Your task to perform on an android device: open app "Fetch Rewards" Image 0: 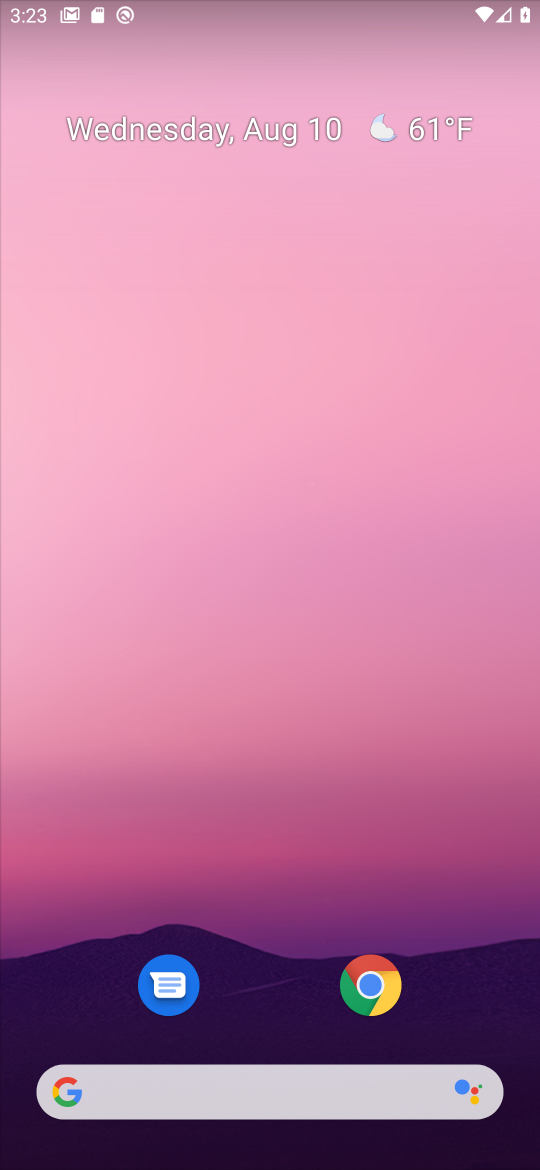
Step 0: drag from (264, 917) to (221, 244)
Your task to perform on an android device: open app "Fetch Rewards" Image 1: 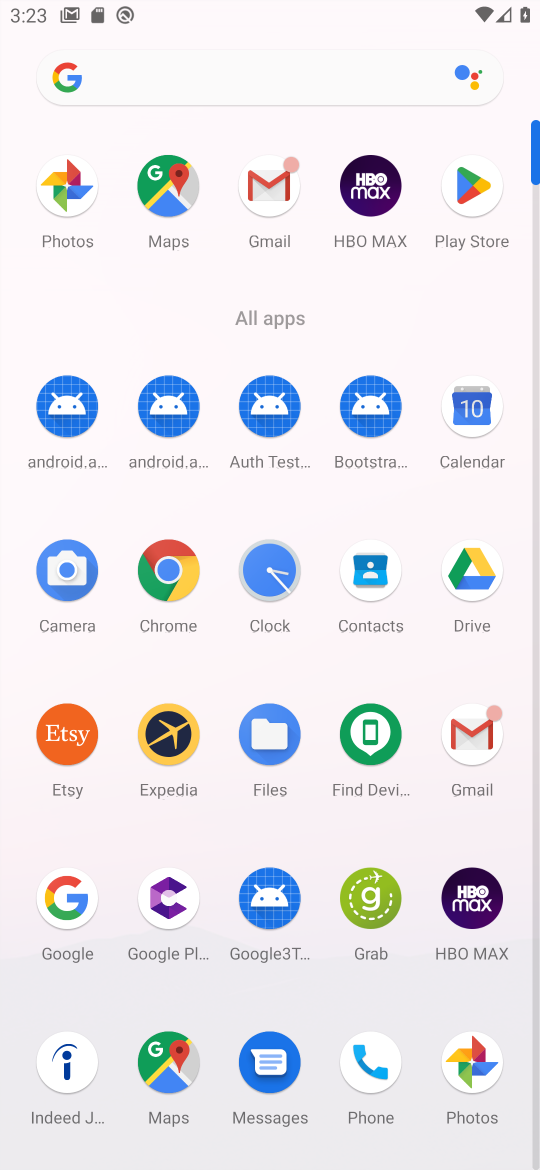
Step 1: click (474, 195)
Your task to perform on an android device: open app "Fetch Rewards" Image 2: 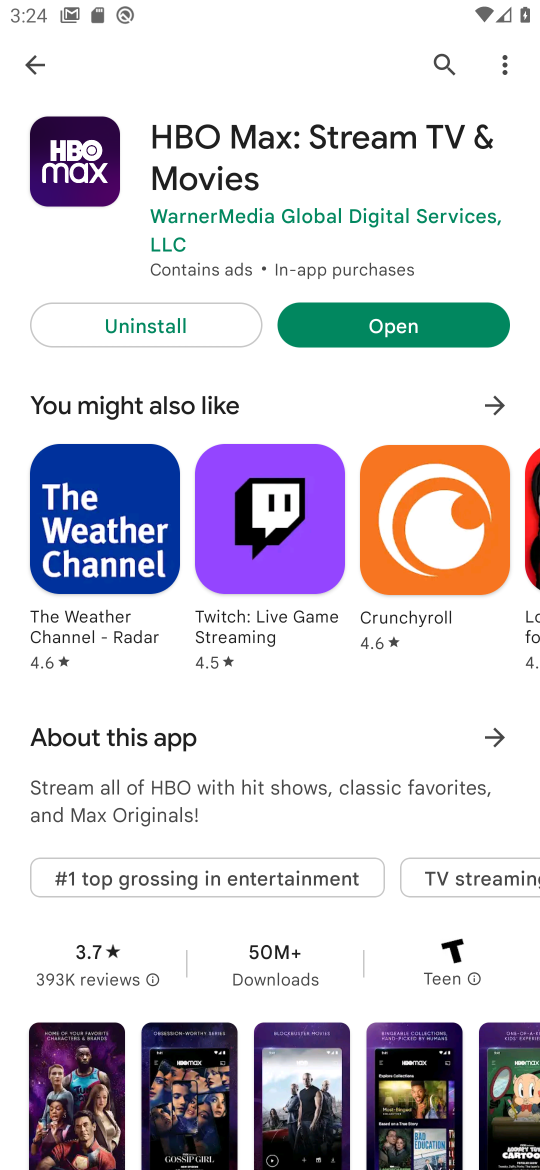
Step 2: click (41, 59)
Your task to perform on an android device: open app "Fetch Rewards" Image 3: 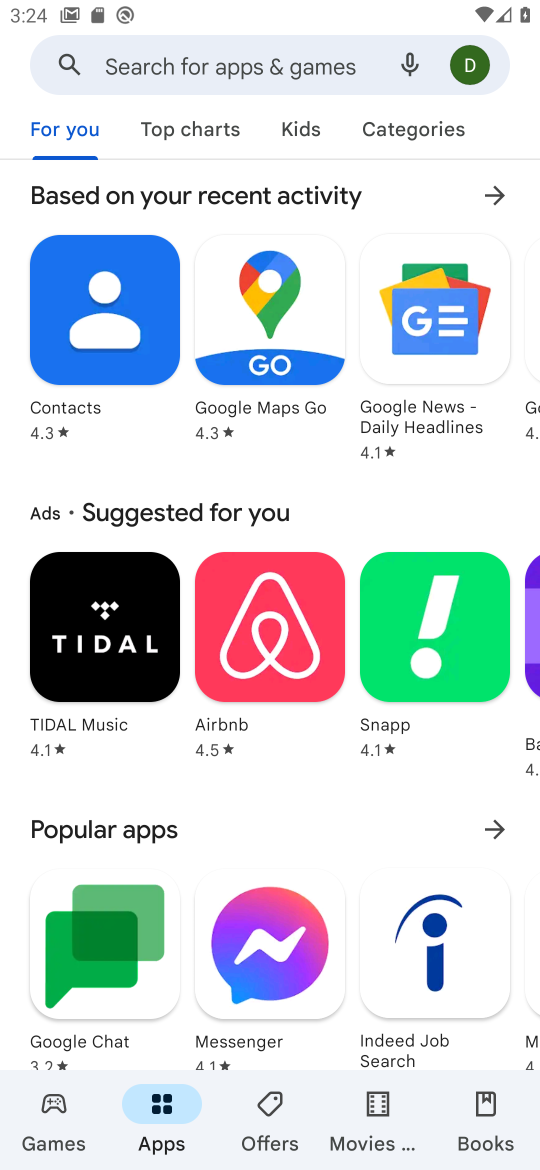
Step 3: click (196, 59)
Your task to perform on an android device: open app "Fetch Rewards" Image 4: 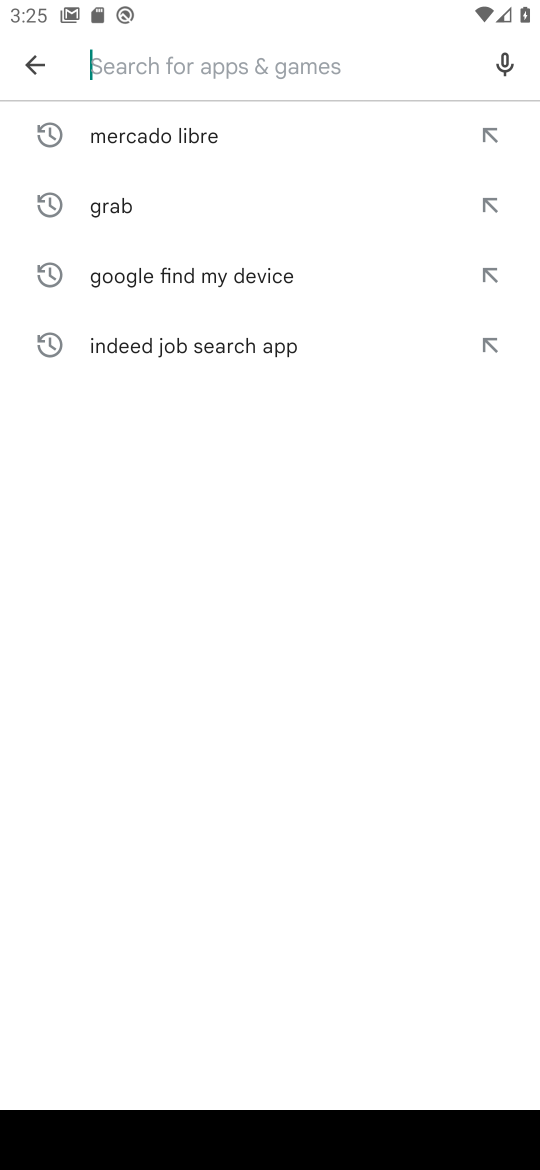
Step 4: type "Fetch Rewards"
Your task to perform on an android device: open app "Fetch Rewards" Image 5: 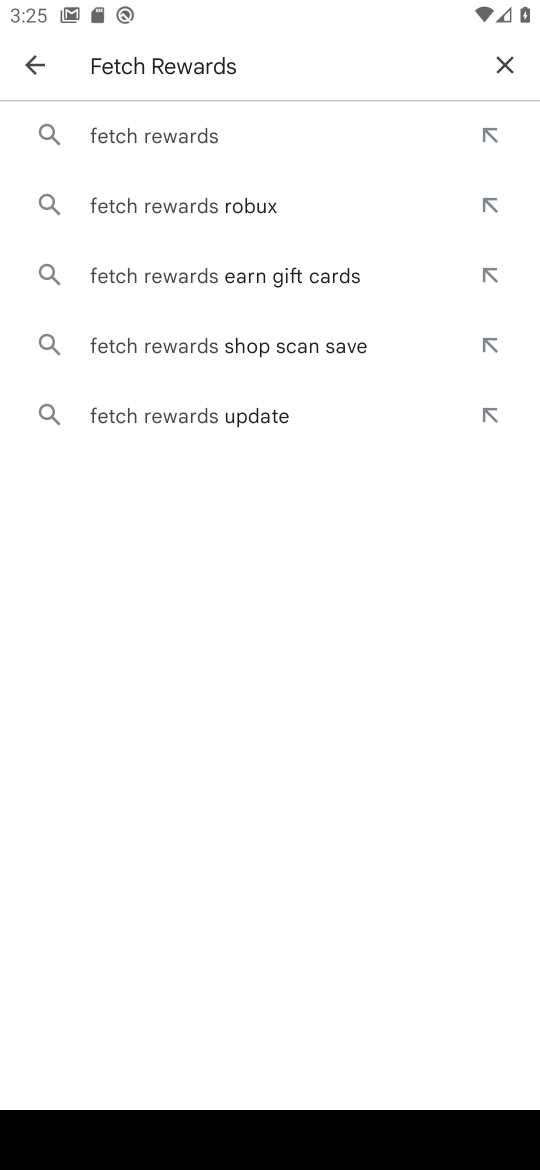
Step 5: click (164, 136)
Your task to perform on an android device: open app "Fetch Rewards" Image 6: 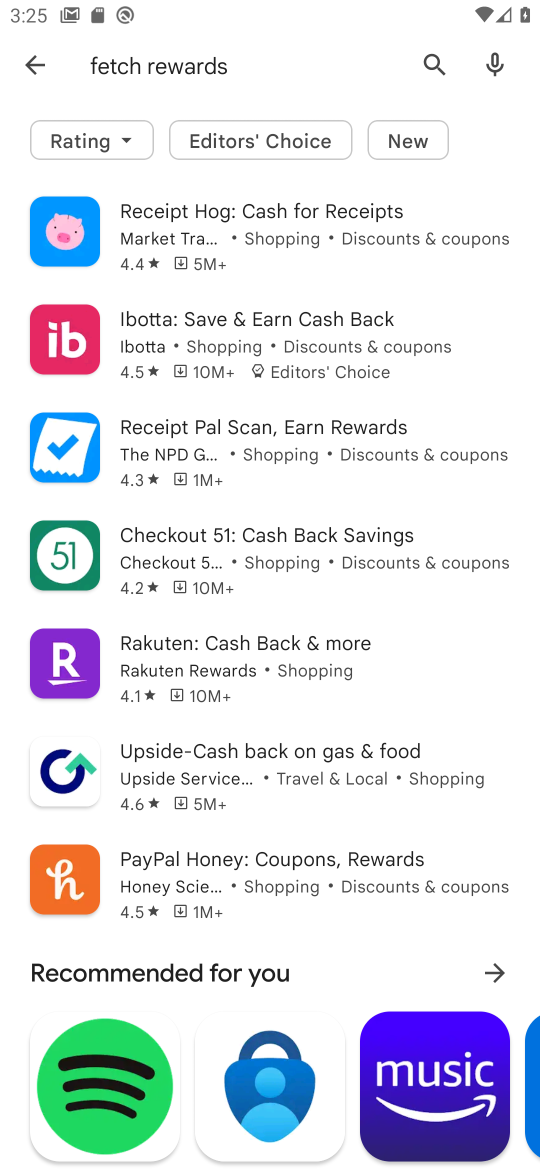
Step 6: task complete